Your task to perform on an android device: toggle priority inbox in the gmail app Image 0: 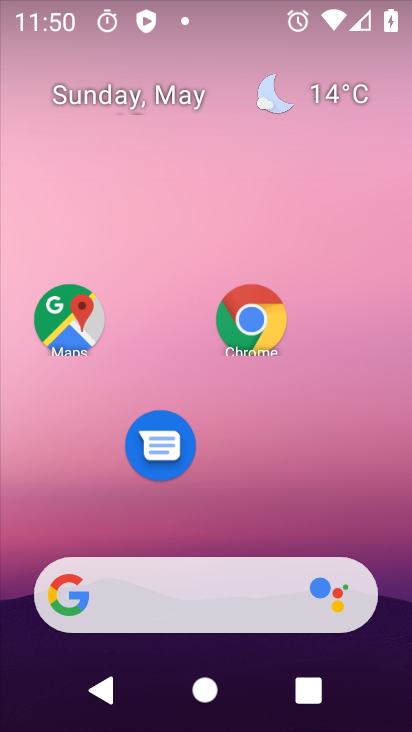
Step 0: press home button
Your task to perform on an android device: toggle priority inbox in the gmail app Image 1: 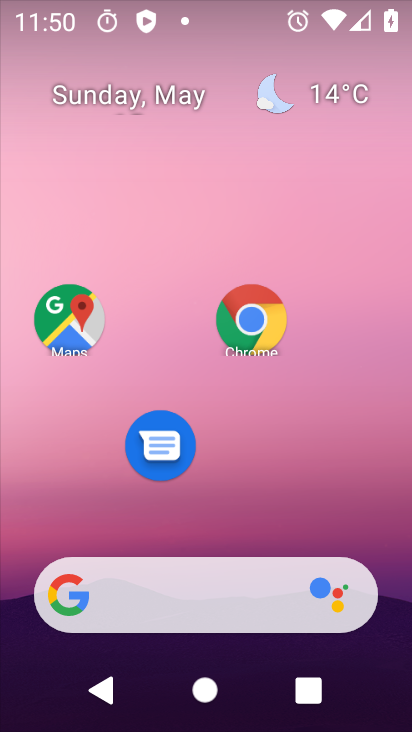
Step 1: drag from (139, 581) to (300, 123)
Your task to perform on an android device: toggle priority inbox in the gmail app Image 2: 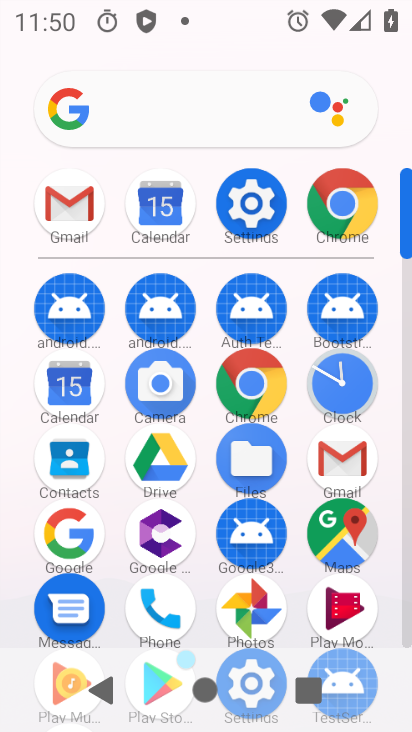
Step 2: click (341, 469)
Your task to perform on an android device: toggle priority inbox in the gmail app Image 3: 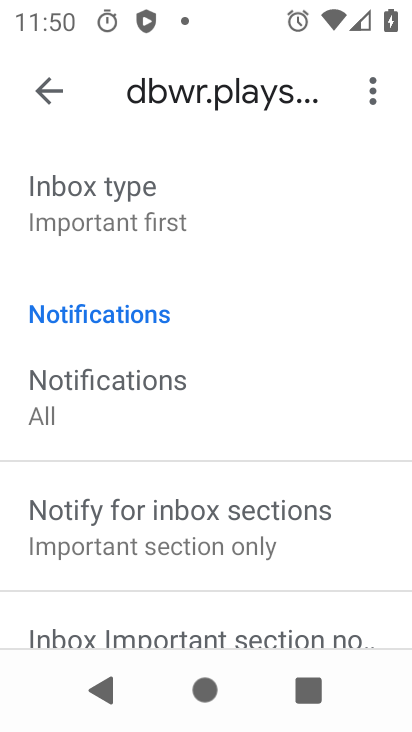
Step 3: drag from (275, 232) to (307, 611)
Your task to perform on an android device: toggle priority inbox in the gmail app Image 4: 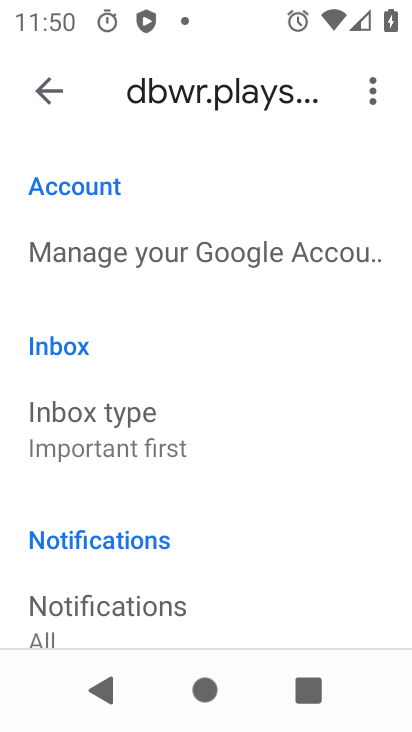
Step 4: click (108, 438)
Your task to perform on an android device: toggle priority inbox in the gmail app Image 5: 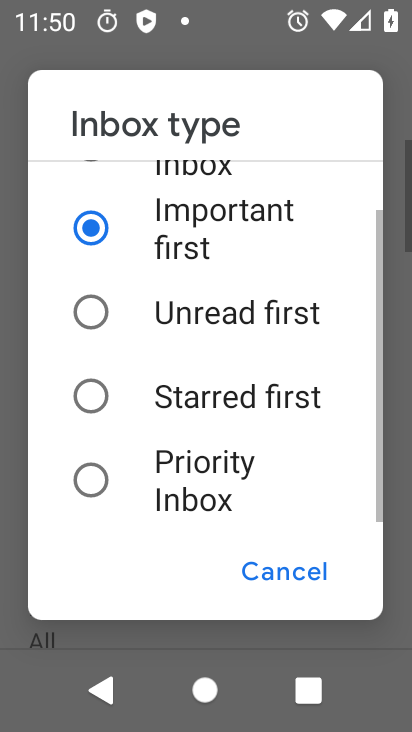
Step 5: click (89, 474)
Your task to perform on an android device: toggle priority inbox in the gmail app Image 6: 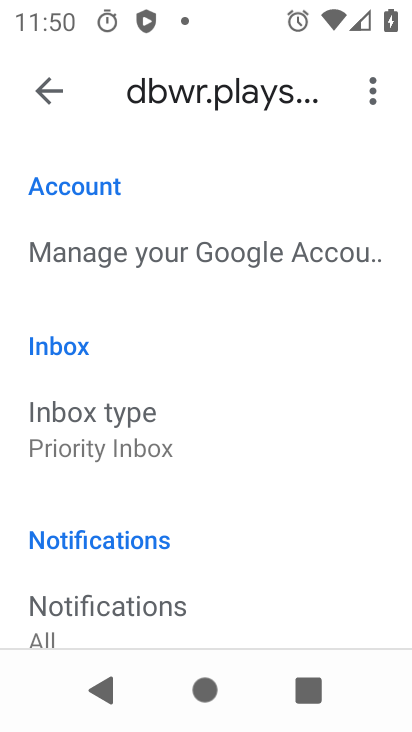
Step 6: task complete